Your task to perform on an android device: Go to location settings Image 0: 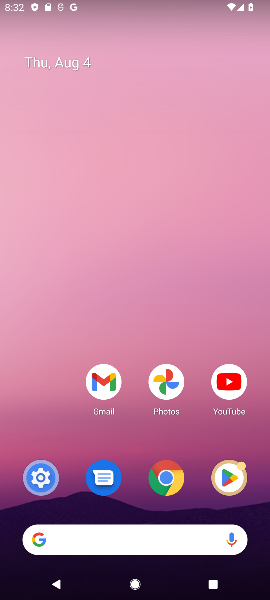
Step 0: drag from (203, 447) to (175, 145)
Your task to perform on an android device: Go to location settings Image 1: 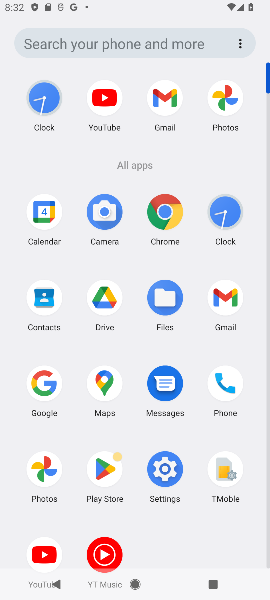
Step 1: click (175, 455)
Your task to perform on an android device: Go to location settings Image 2: 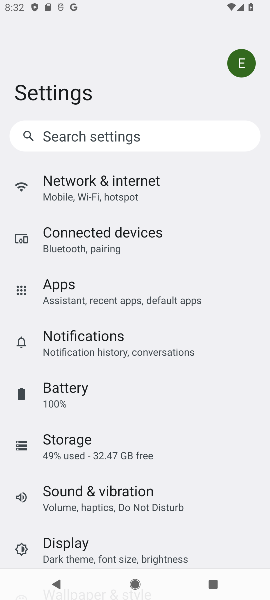
Step 2: drag from (117, 484) to (3, 169)
Your task to perform on an android device: Go to location settings Image 3: 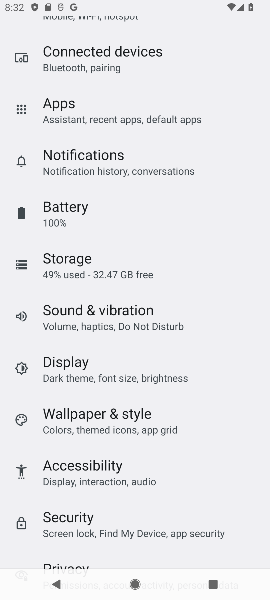
Step 3: drag from (79, 487) to (87, 195)
Your task to perform on an android device: Go to location settings Image 4: 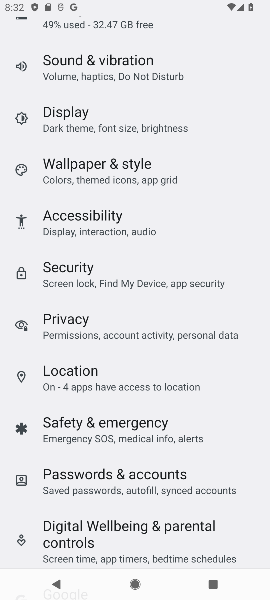
Step 4: click (57, 380)
Your task to perform on an android device: Go to location settings Image 5: 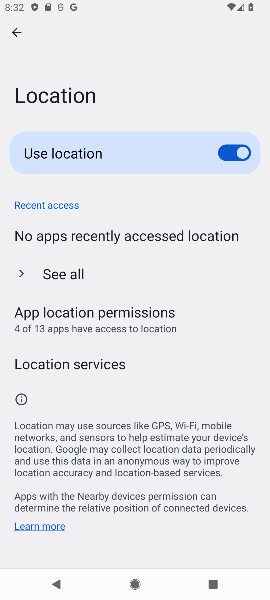
Step 5: task complete